Your task to perform on an android device: Open settings Image 0: 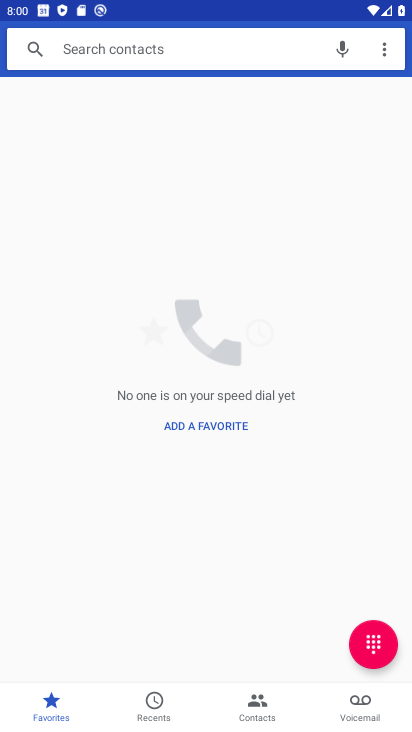
Step 0: press home button
Your task to perform on an android device: Open settings Image 1: 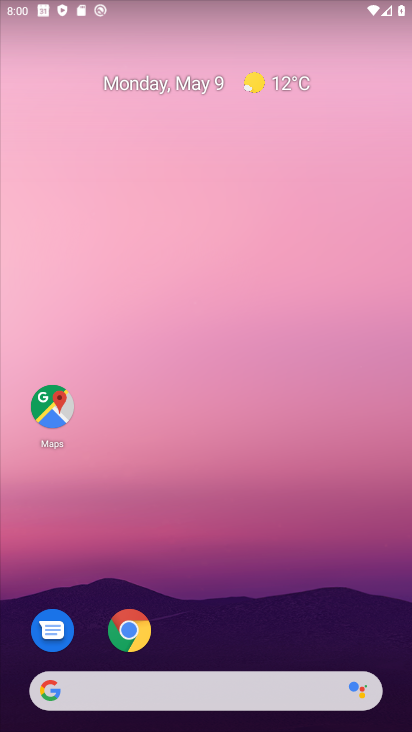
Step 1: drag from (195, 649) to (267, 205)
Your task to perform on an android device: Open settings Image 2: 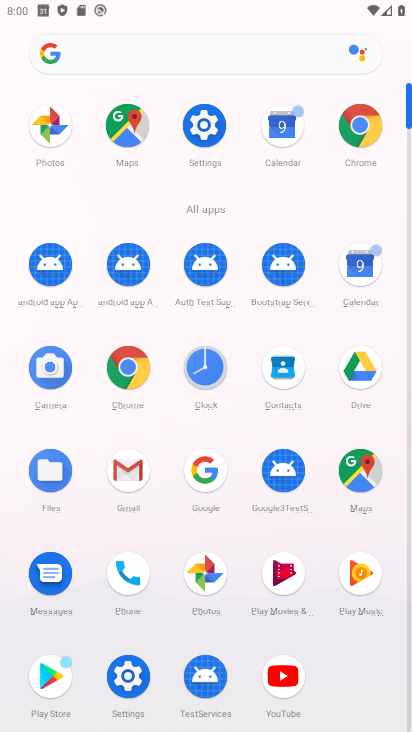
Step 2: click (210, 121)
Your task to perform on an android device: Open settings Image 3: 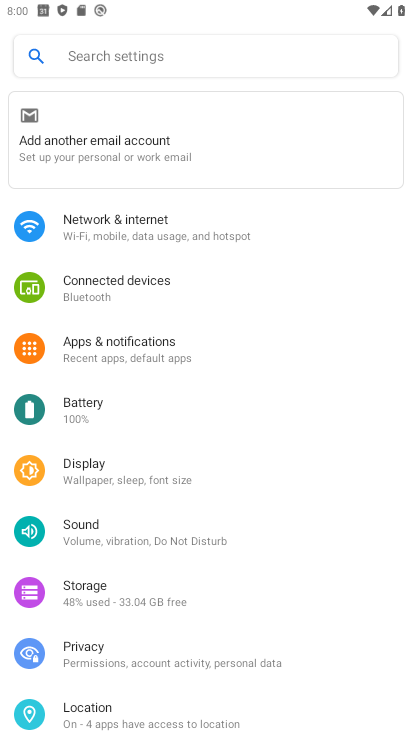
Step 3: task complete